Your task to perform on an android device: check out phone information Image 0: 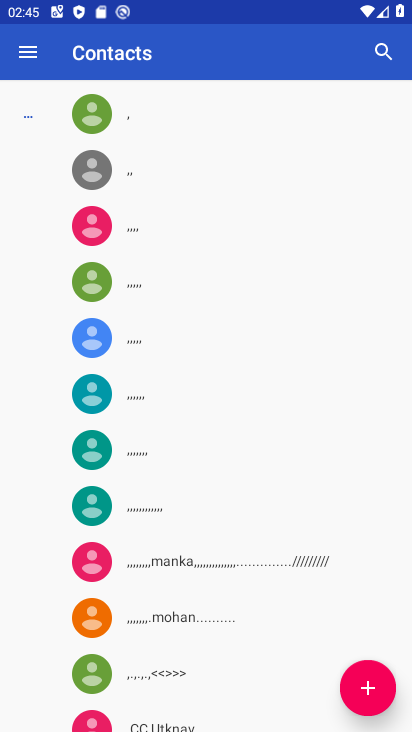
Step 0: press home button
Your task to perform on an android device: check out phone information Image 1: 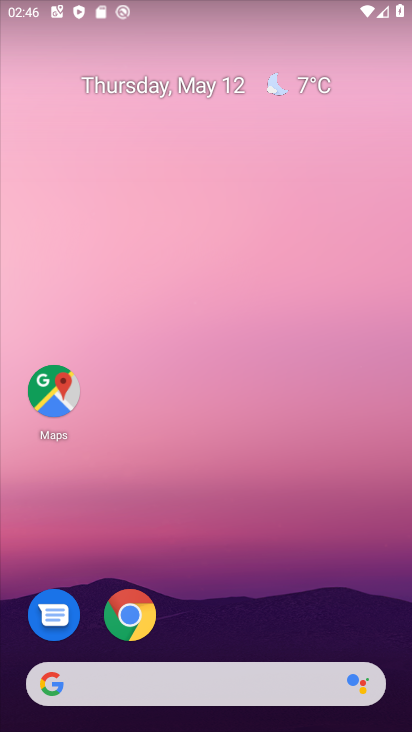
Step 1: drag from (235, 677) to (177, 287)
Your task to perform on an android device: check out phone information Image 2: 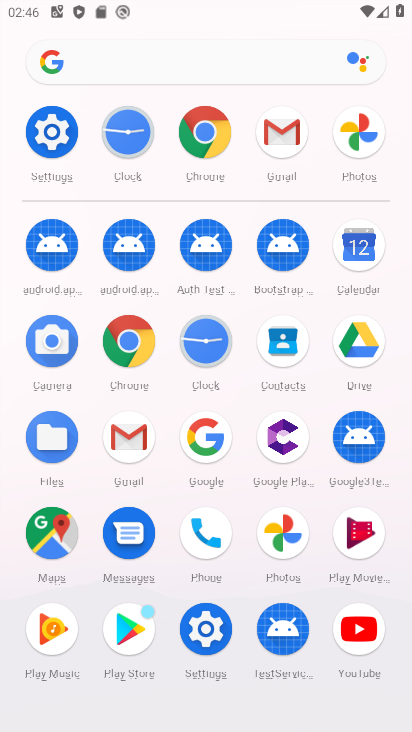
Step 2: click (46, 130)
Your task to perform on an android device: check out phone information Image 3: 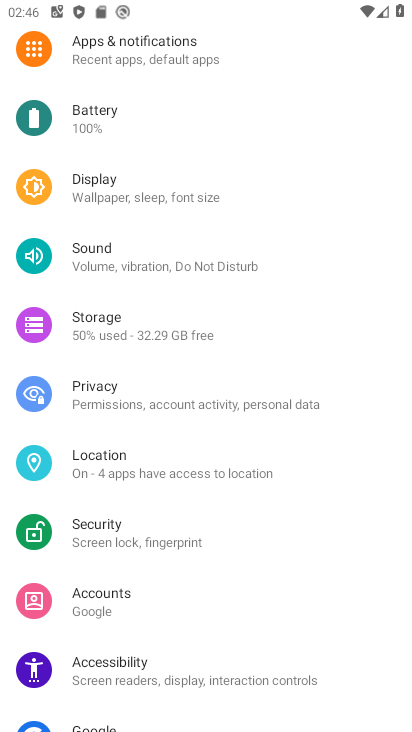
Step 3: drag from (139, 580) to (182, 228)
Your task to perform on an android device: check out phone information Image 4: 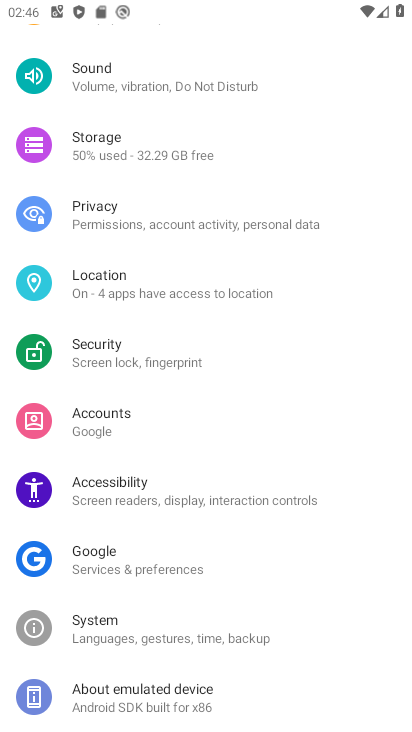
Step 4: click (149, 679)
Your task to perform on an android device: check out phone information Image 5: 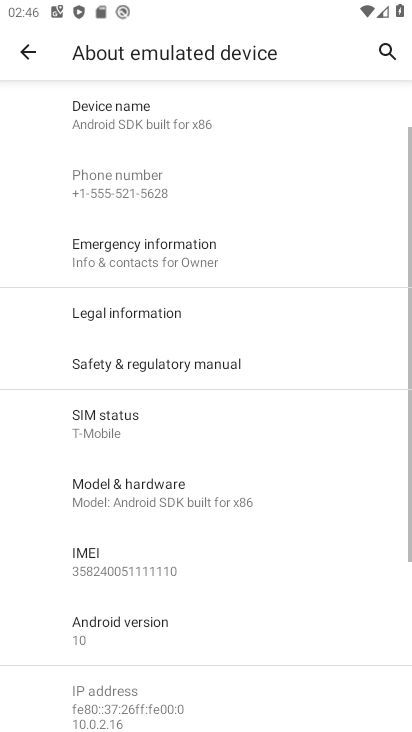
Step 5: task complete